Your task to perform on an android device: turn on location history Image 0: 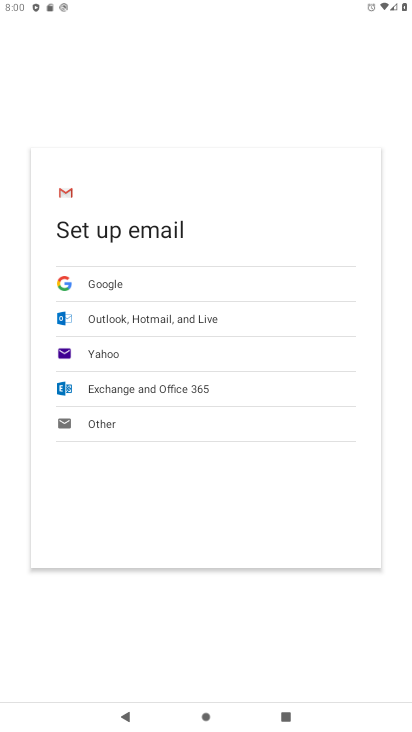
Step 0: press home button
Your task to perform on an android device: turn on location history Image 1: 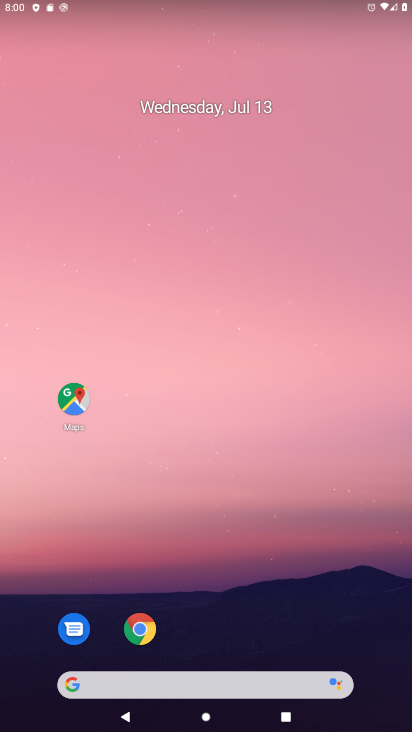
Step 1: drag from (350, 664) to (300, 13)
Your task to perform on an android device: turn on location history Image 2: 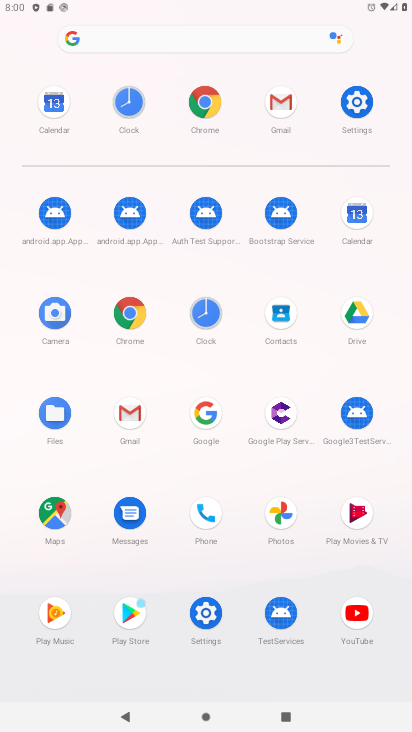
Step 2: click (346, 107)
Your task to perform on an android device: turn on location history Image 3: 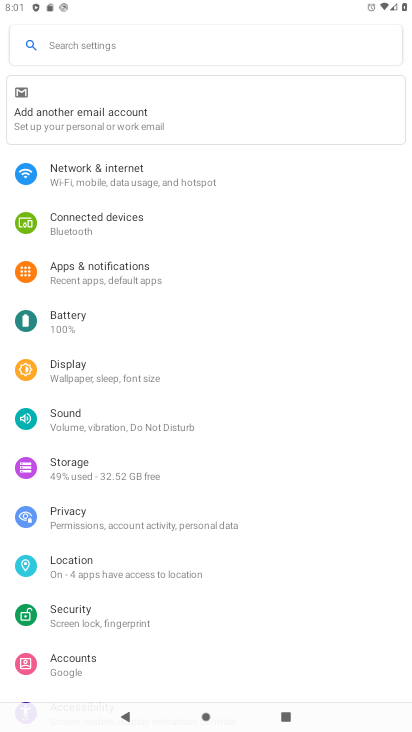
Step 3: click (62, 569)
Your task to perform on an android device: turn on location history Image 4: 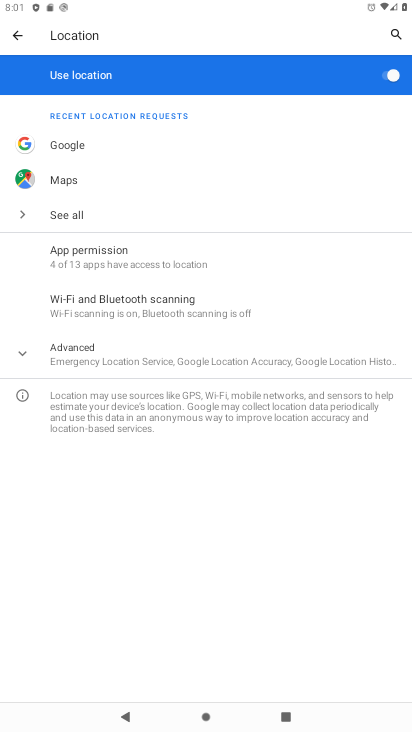
Step 4: click (93, 363)
Your task to perform on an android device: turn on location history Image 5: 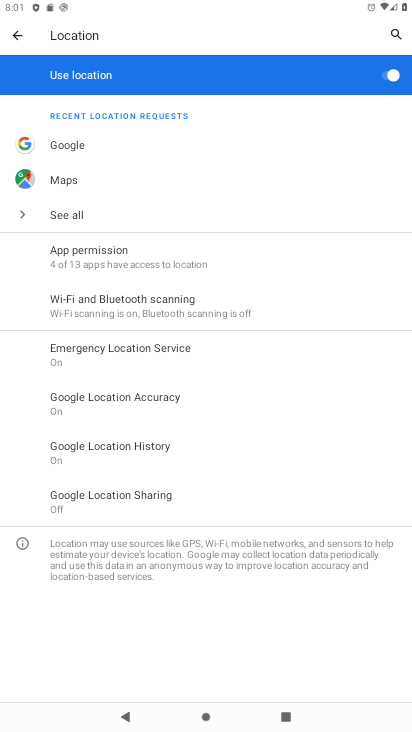
Step 5: click (90, 453)
Your task to perform on an android device: turn on location history Image 6: 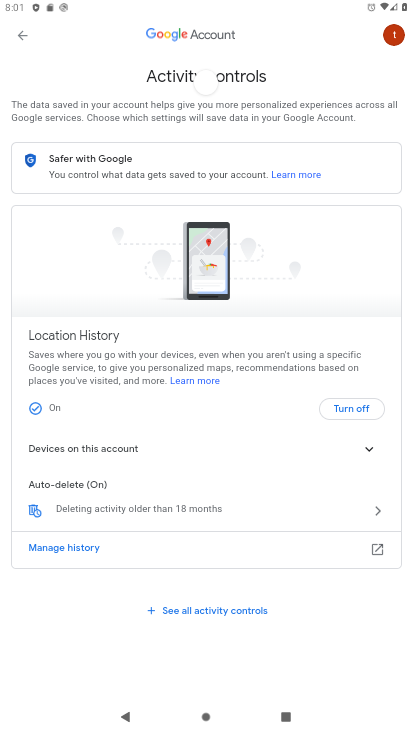
Step 6: task complete